Your task to perform on an android device: toggle javascript in the chrome app Image 0: 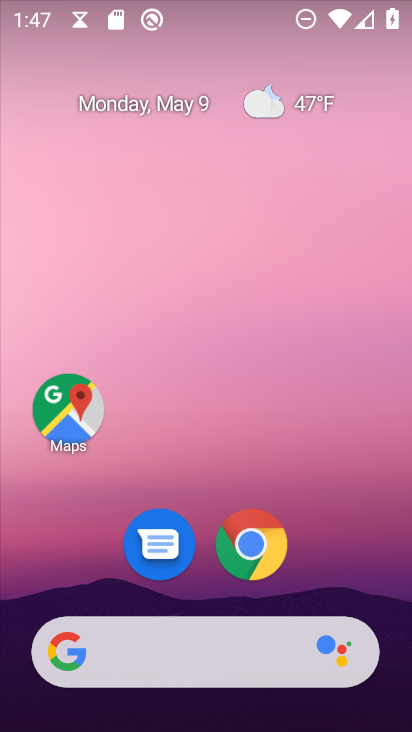
Step 0: drag from (338, 543) to (387, 196)
Your task to perform on an android device: toggle javascript in the chrome app Image 1: 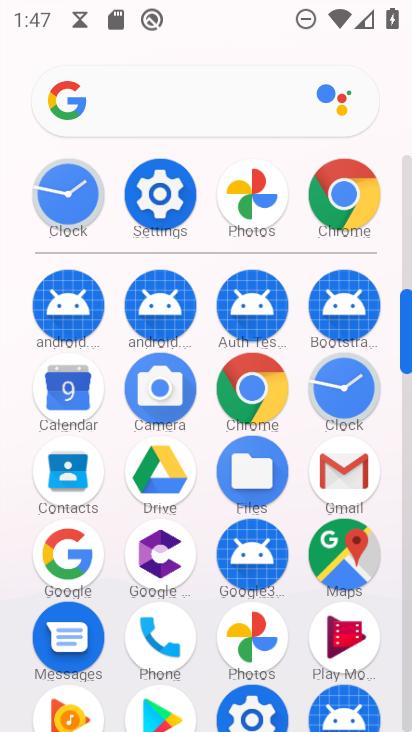
Step 1: click (356, 187)
Your task to perform on an android device: toggle javascript in the chrome app Image 2: 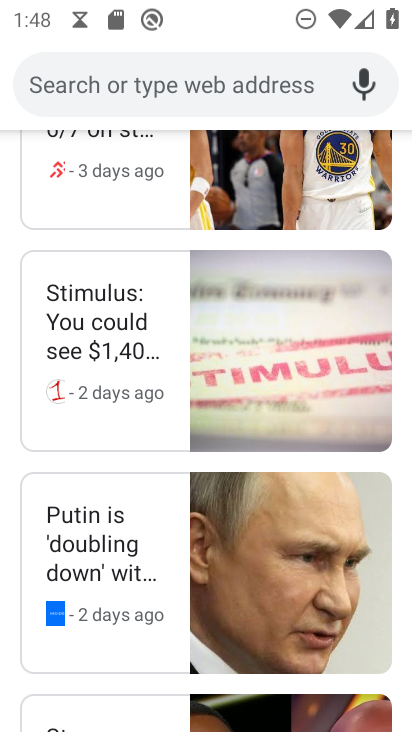
Step 2: drag from (184, 216) to (232, 562)
Your task to perform on an android device: toggle javascript in the chrome app Image 3: 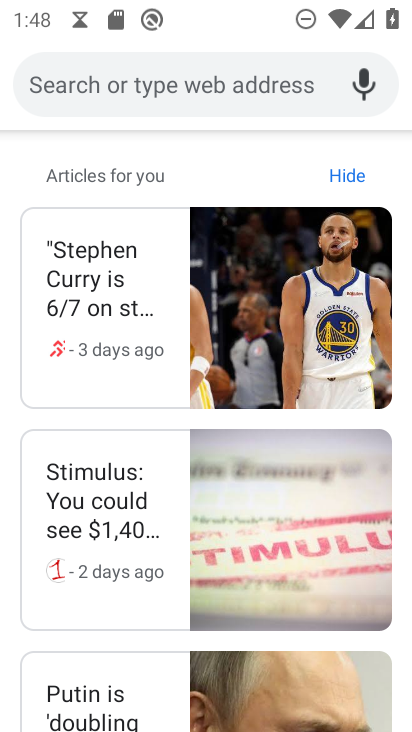
Step 3: drag from (131, 214) to (133, 535)
Your task to perform on an android device: toggle javascript in the chrome app Image 4: 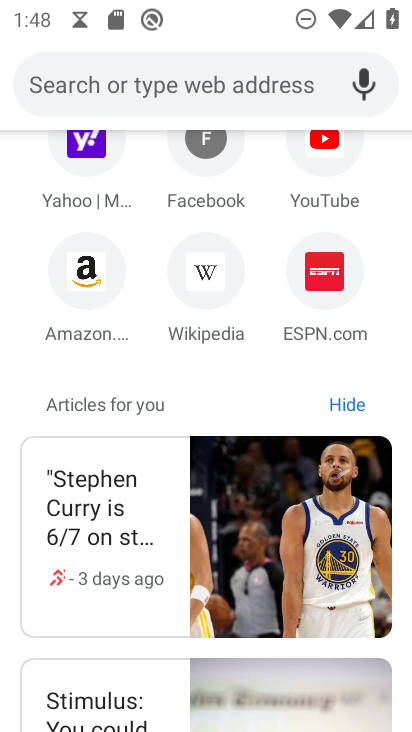
Step 4: drag from (249, 199) to (243, 554)
Your task to perform on an android device: toggle javascript in the chrome app Image 5: 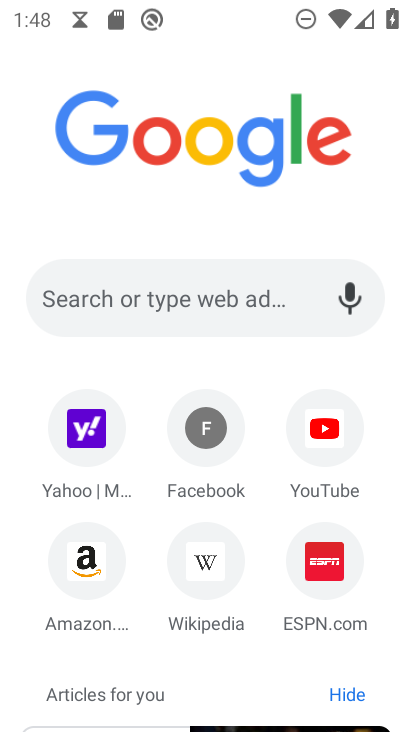
Step 5: drag from (349, 123) to (327, 538)
Your task to perform on an android device: toggle javascript in the chrome app Image 6: 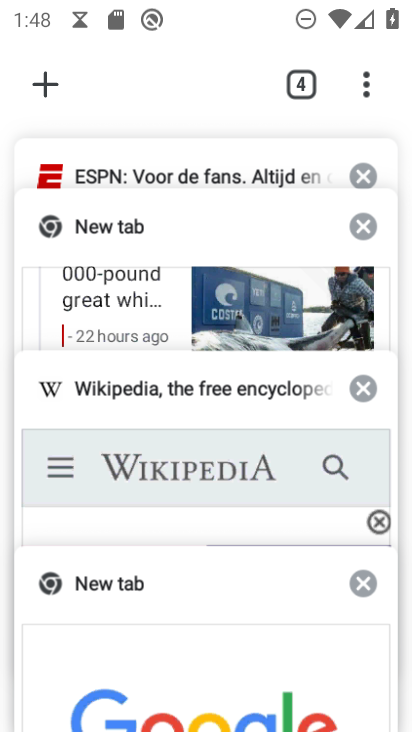
Step 6: click (365, 80)
Your task to perform on an android device: toggle javascript in the chrome app Image 7: 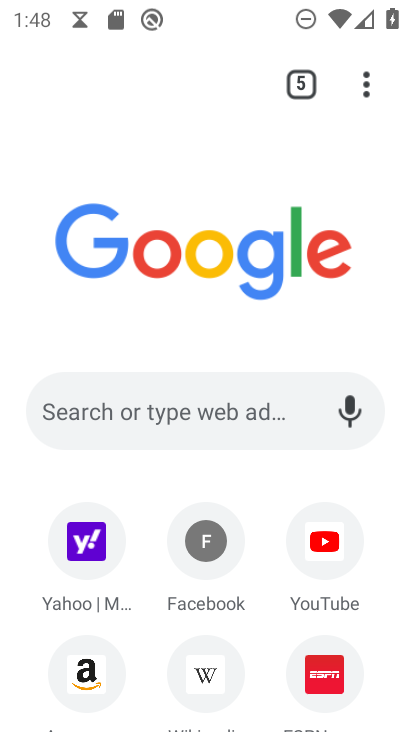
Step 7: click (365, 85)
Your task to perform on an android device: toggle javascript in the chrome app Image 8: 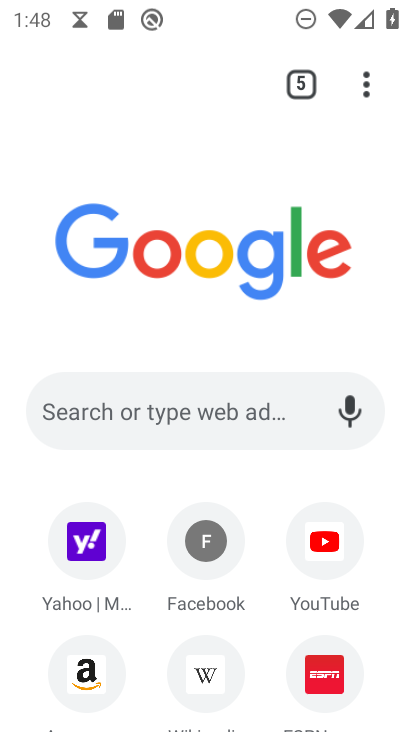
Step 8: drag from (365, 85) to (140, 588)
Your task to perform on an android device: toggle javascript in the chrome app Image 9: 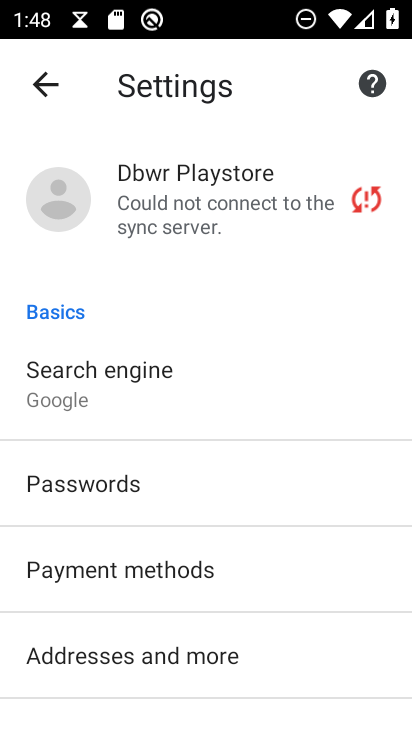
Step 9: drag from (138, 584) to (209, 211)
Your task to perform on an android device: toggle javascript in the chrome app Image 10: 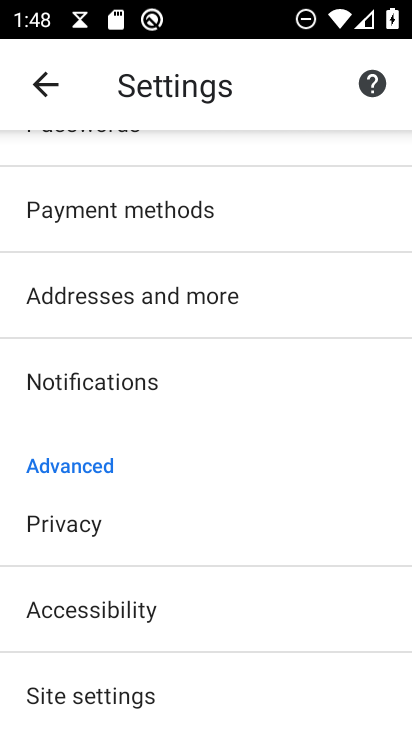
Step 10: drag from (213, 556) to (258, 328)
Your task to perform on an android device: toggle javascript in the chrome app Image 11: 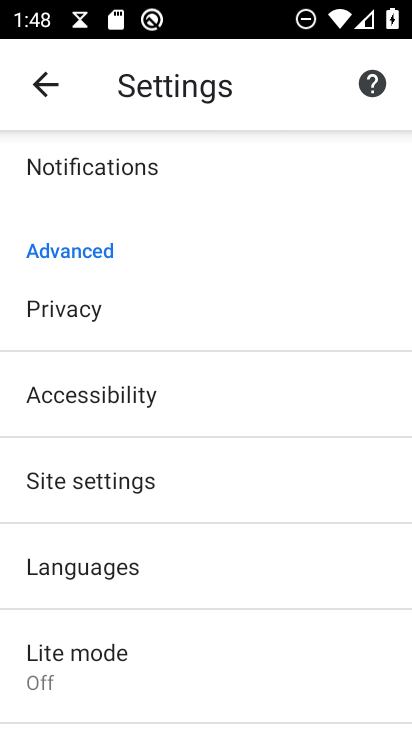
Step 11: click (175, 462)
Your task to perform on an android device: toggle javascript in the chrome app Image 12: 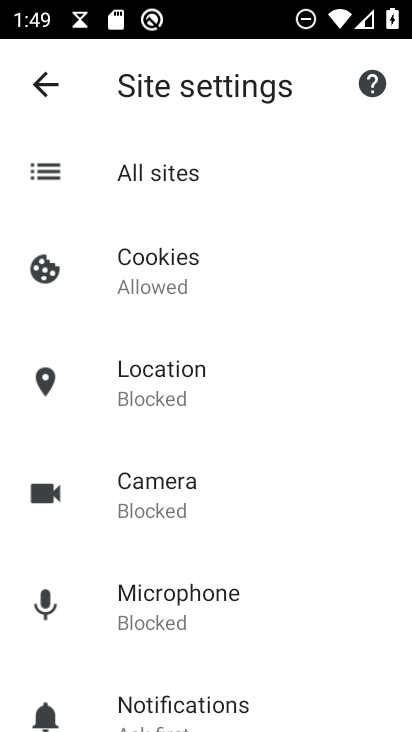
Step 12: drag from (180, 571) to (248, 272)
Your task to perform on an android device: toggle javascript in the chrome app Image 13: 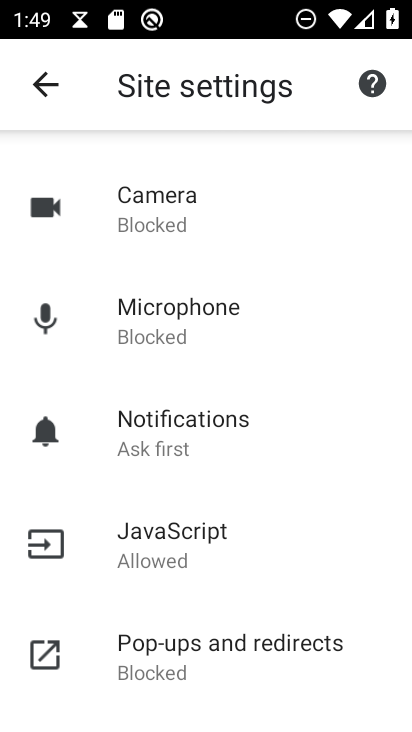
Step 13: click (125, 520)
Your task to perform on an android device: toggle javascript in the chrome app Image 14: 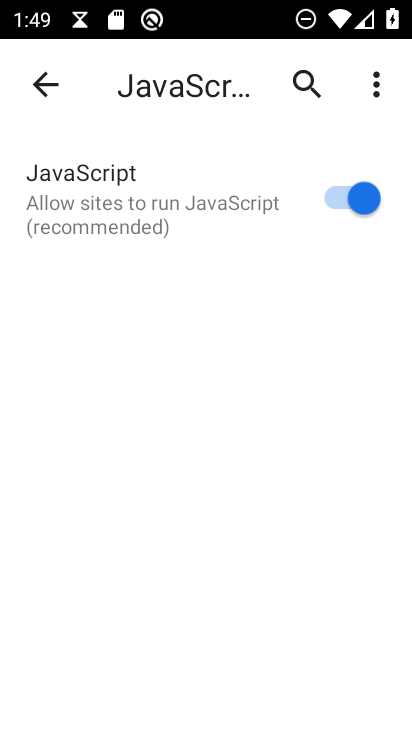
Step 14: click (326, 202)
Your task to perform on an android device: toggle javascript in the chrome app Image 15: 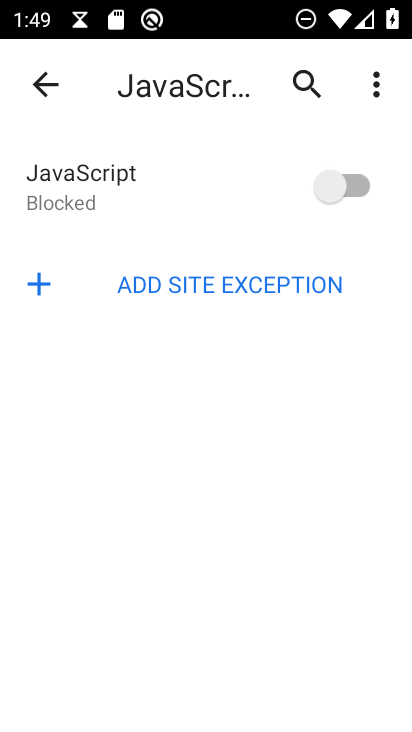
Step 15: task complete